Your task to perform on an android device: Show the shopping cart on costco. Add corsair k70 to the cart on costco Image 0: 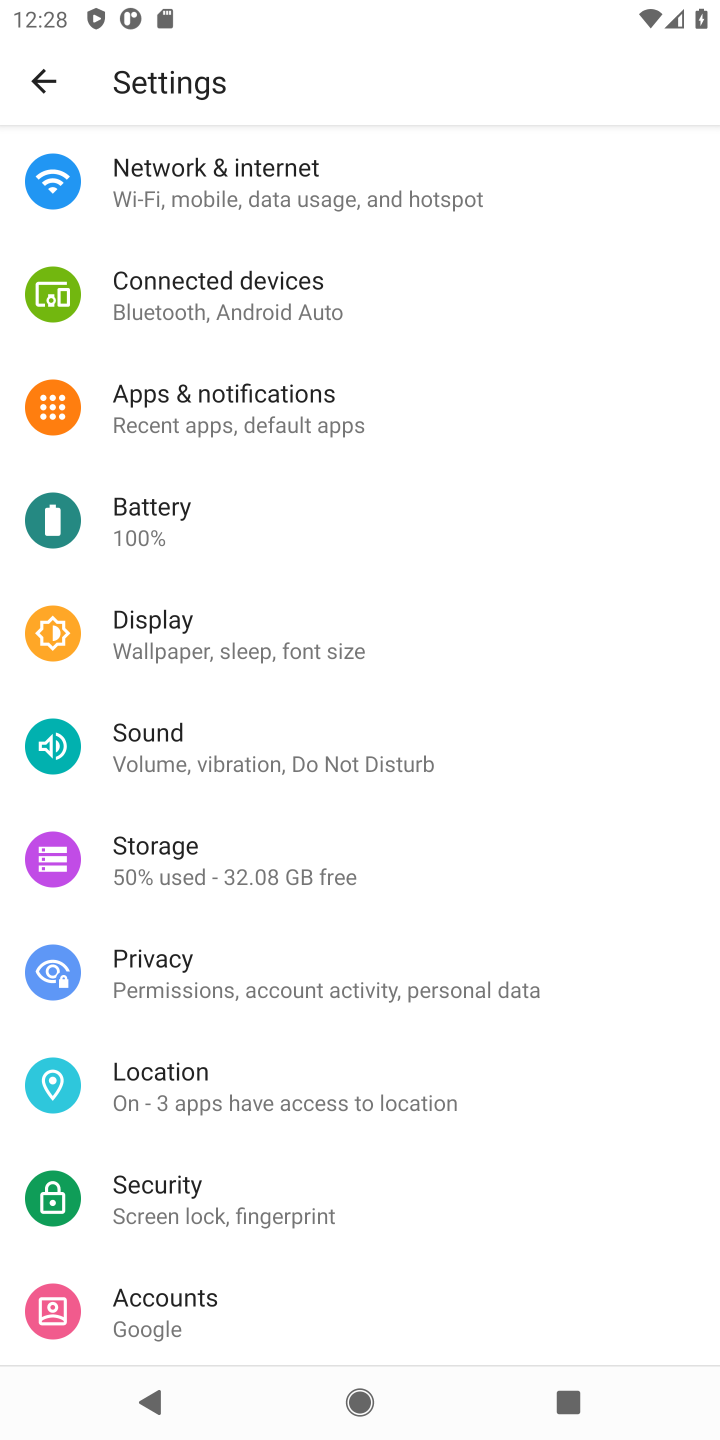
Step 0: press home button
Your task to perform on an android device: Show the shopping cart on costco. Add corsair k70 to the cart on costco Image 1: 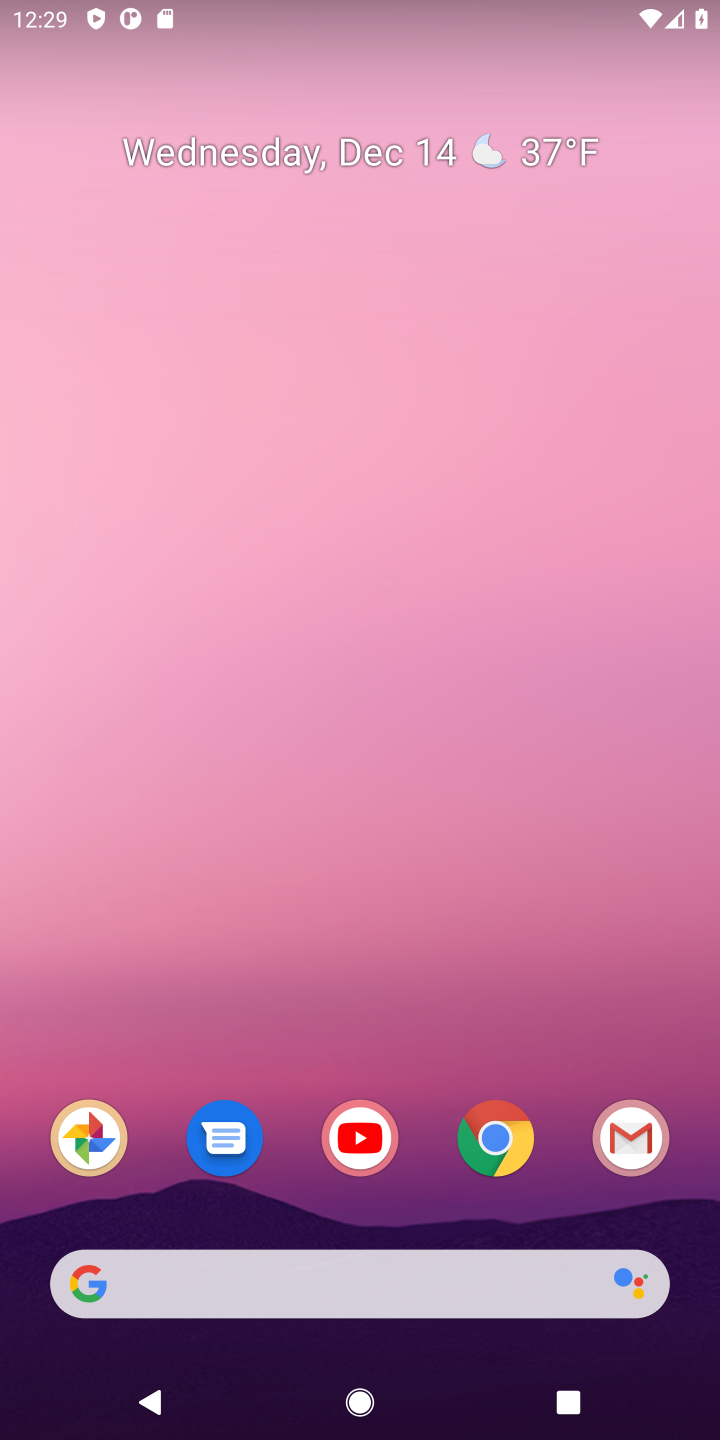
Step 1: click (486, 1137)
Your task to perform on an android device: Show the shopping cart on costco. Add corsair k70 to the cart on costco Image 2: 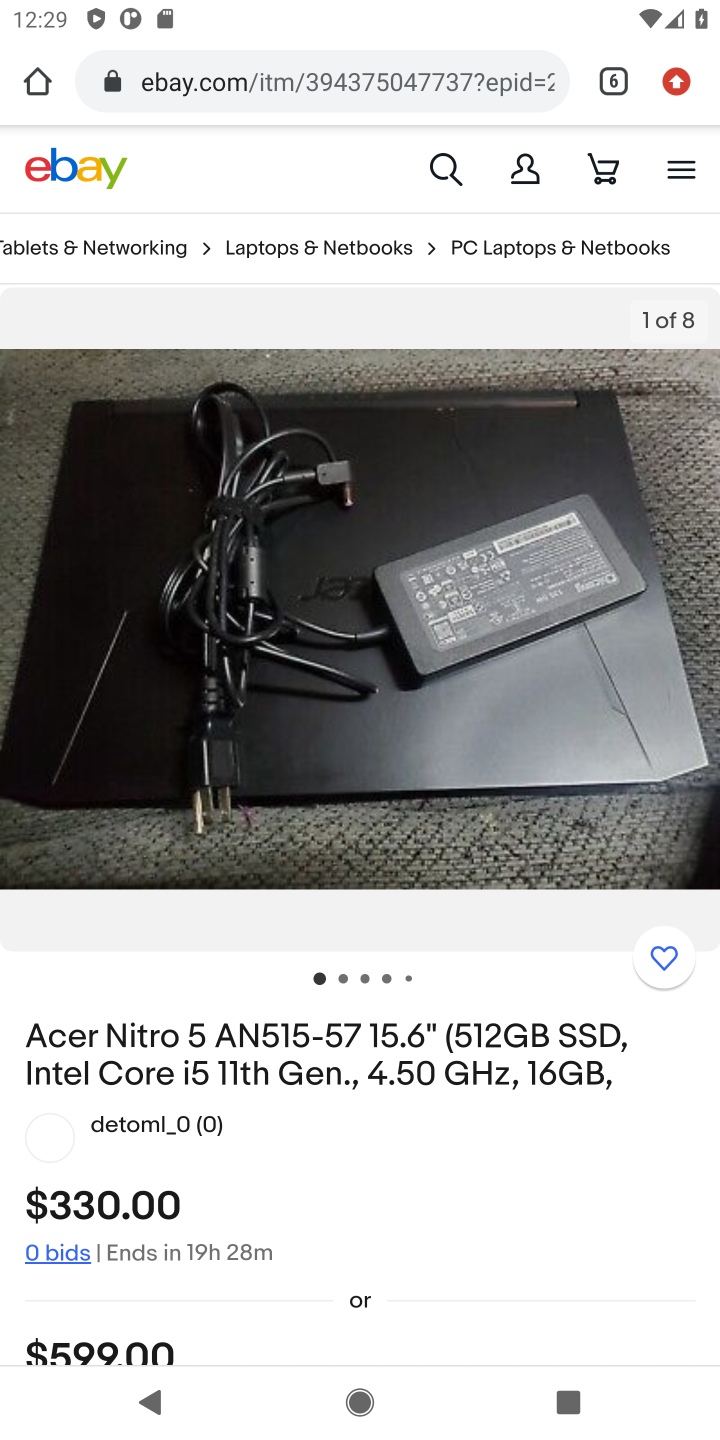
Step 2: click (615, 81)
Your task to perform on an android device: Show the shopping cart on costco. Add corsair k70 to the cart on costco Image 3: 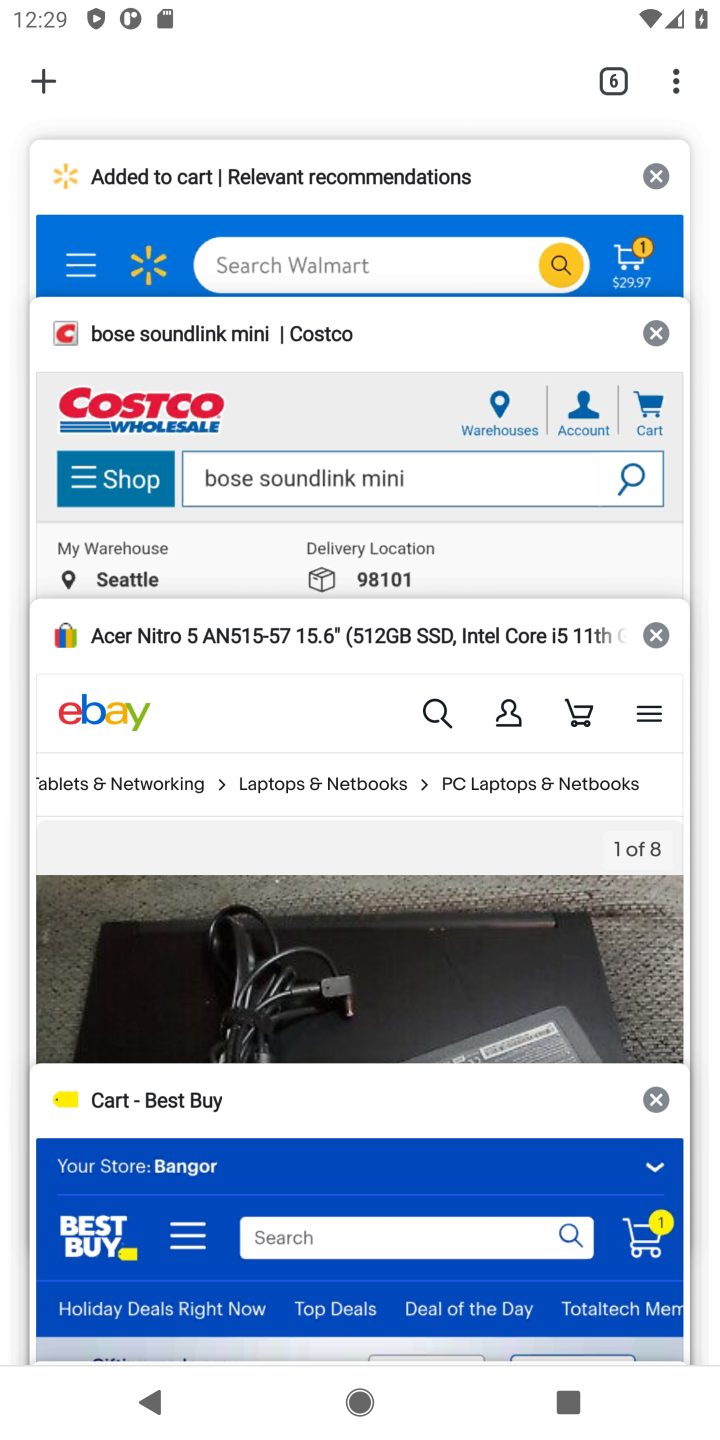
Step 3: click (250, 520)
Your task to perform on an android device: Show the shopping cart on costco. Add corsair k70 to the cart on costco Image 4: 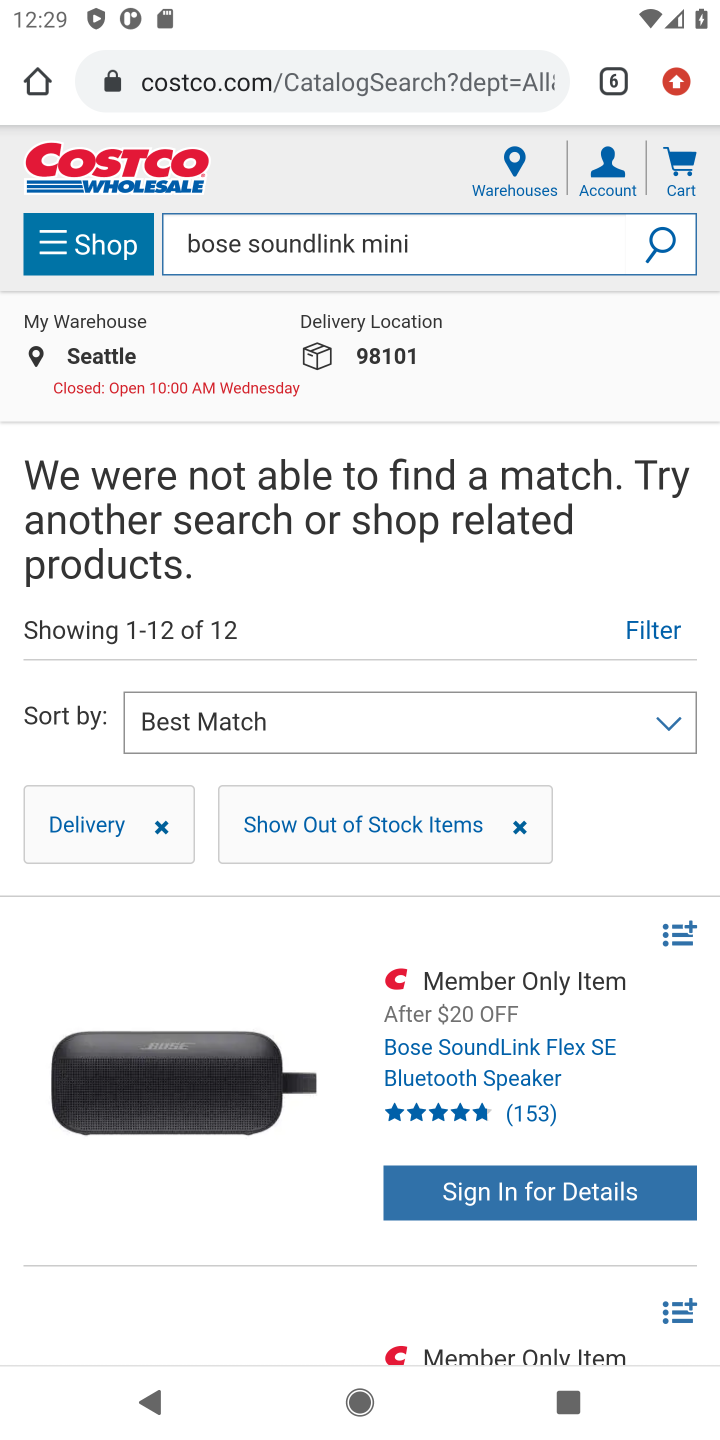
Step 4: click (466, 245)
Your task to perform on an android device: Show the shopping cart on costco. Add corsair k70 to the cart on costco Image 5: 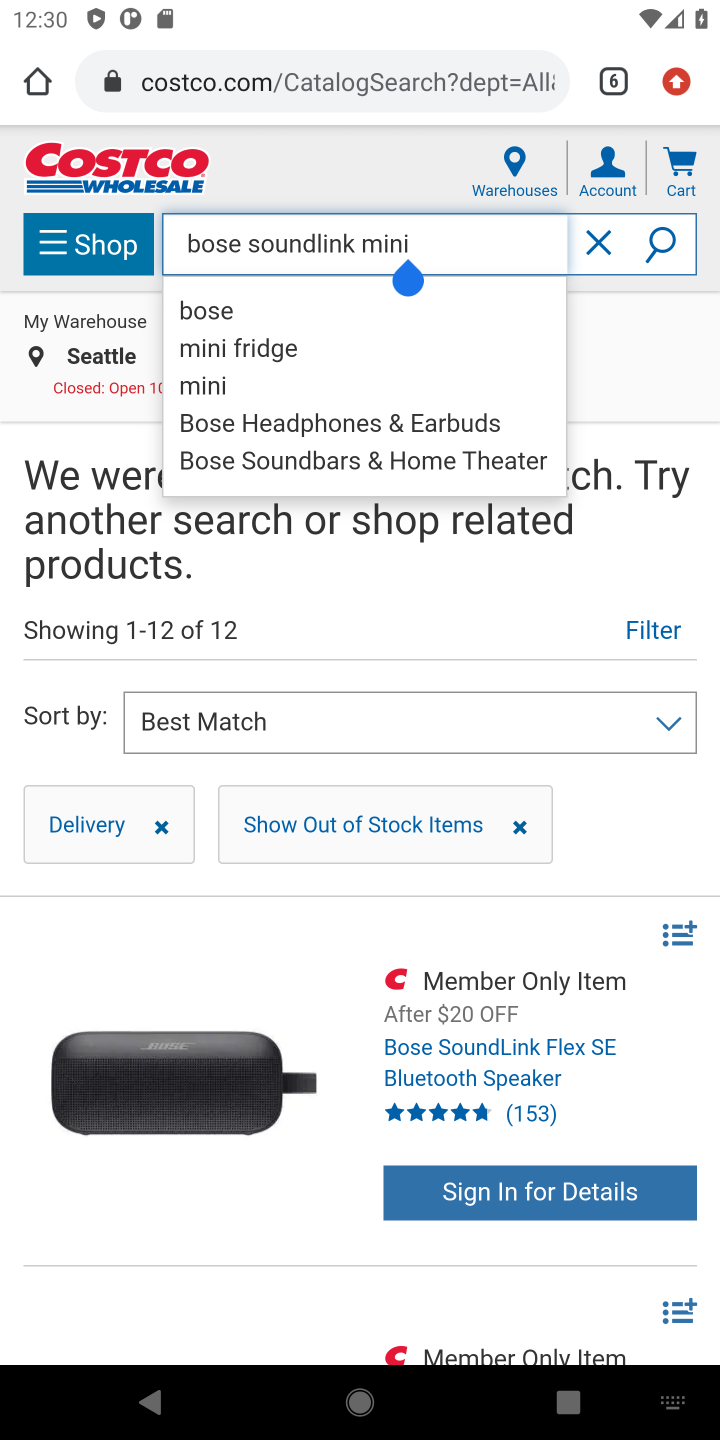
Step 5: click (594, 244)
Your task to perform on an android device: Show the shopping cart on costco. Add corsair k70 to the cart on costco Image 6: 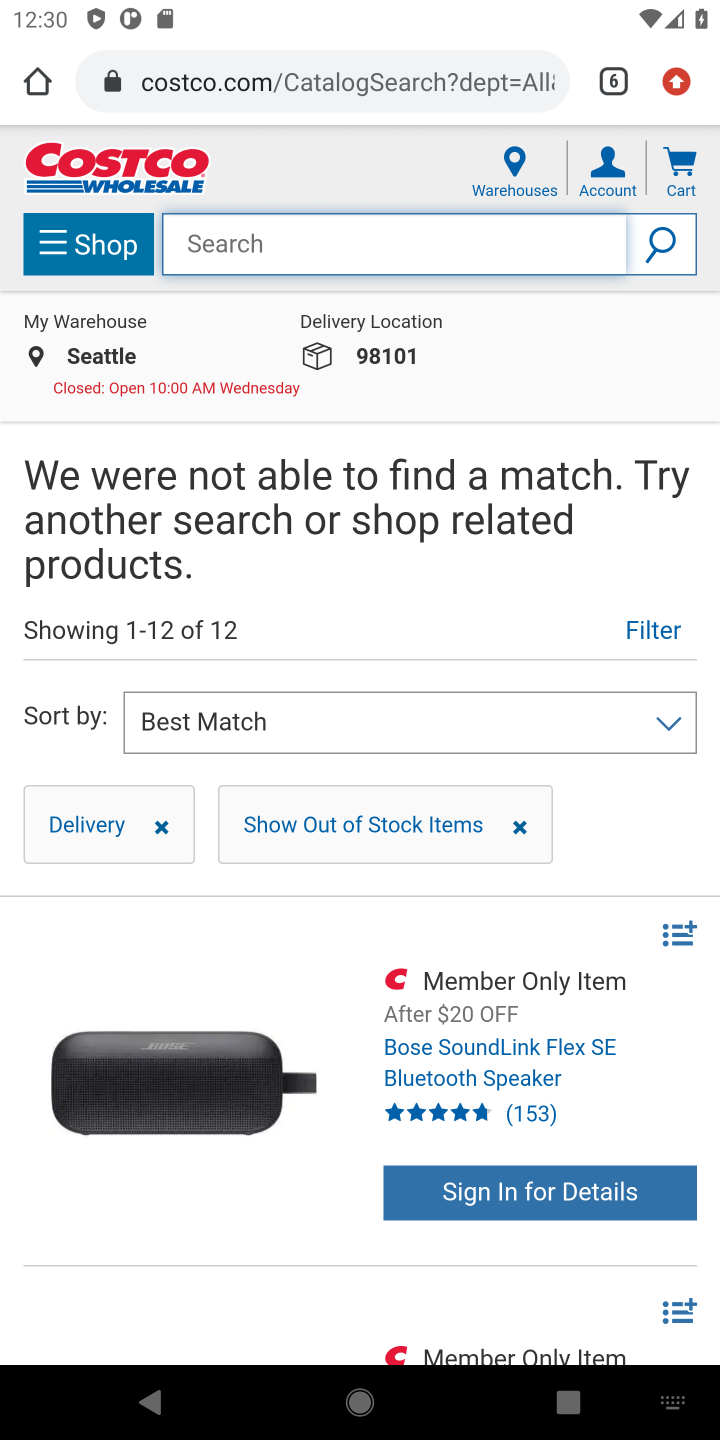
Step 6: type "corsair k70"
Your task to perform on an android device: Show the shopping cart on costco. Add corsair k70 to the cart on costco Image 7: 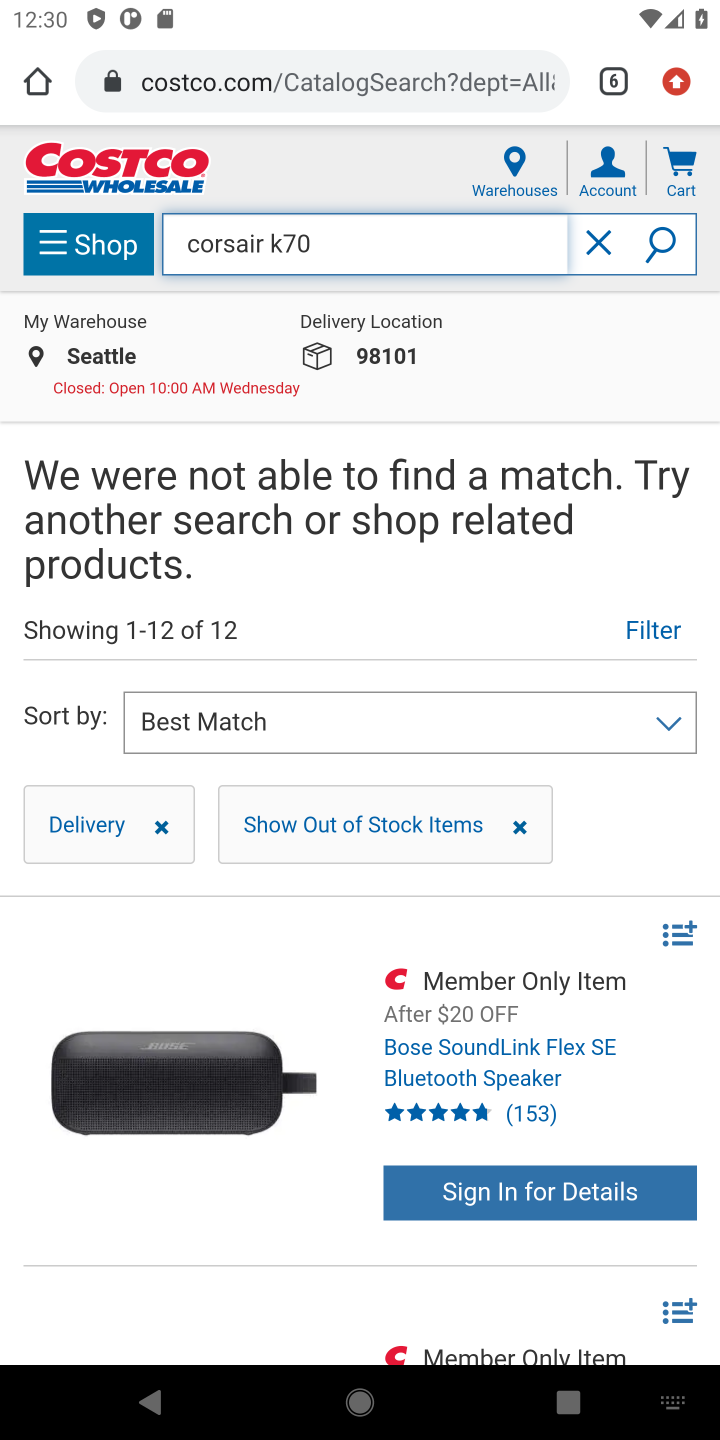
Step 7: click (662, 244)
Your task to perform on an android device: Show the shopping cart on costco. Add corsair k70 to the cart on costco Image 8: 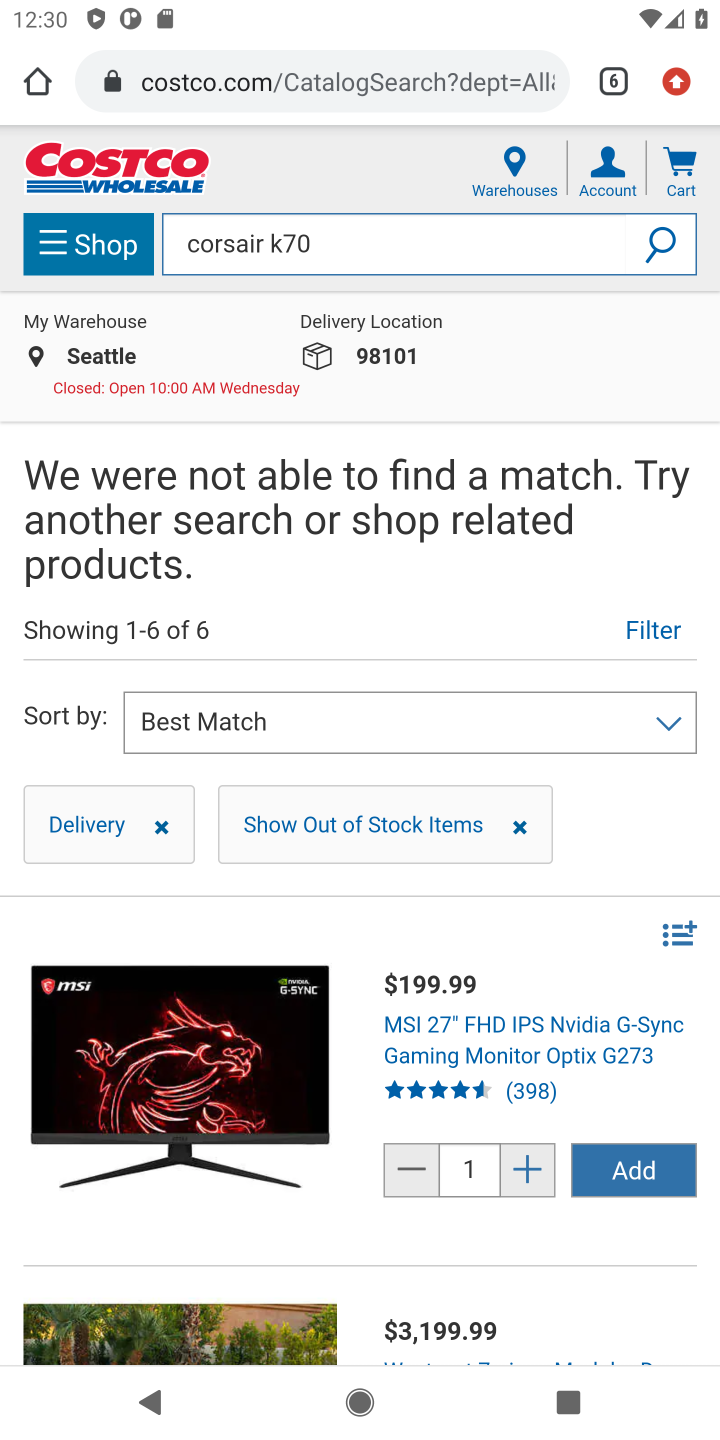
Step 8: task complete